Your task to perform on an android device: visit the assistant section in the google photos Image 0: 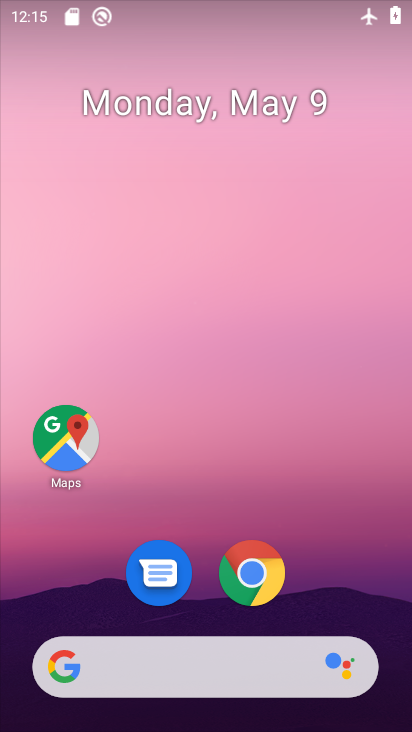
Step 0: drag from (180, 646) to (234, 214)
Your task to perform on an android device: visit the assistant section in the google photos Image 1: 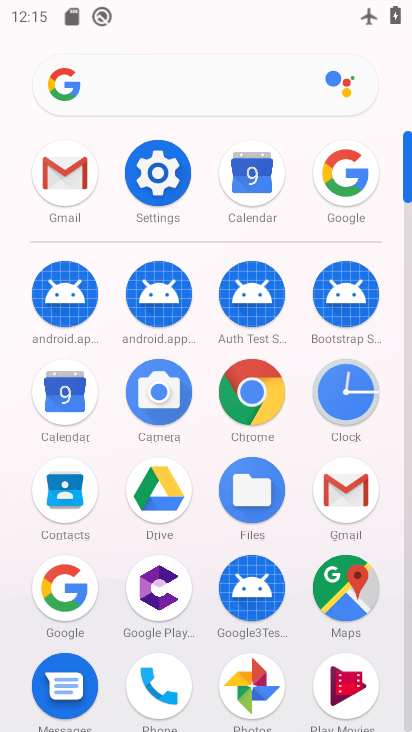
Step 1: click (241, 676)
Your task to perform on an android device: visit the assistant section in the google photos Image 2: 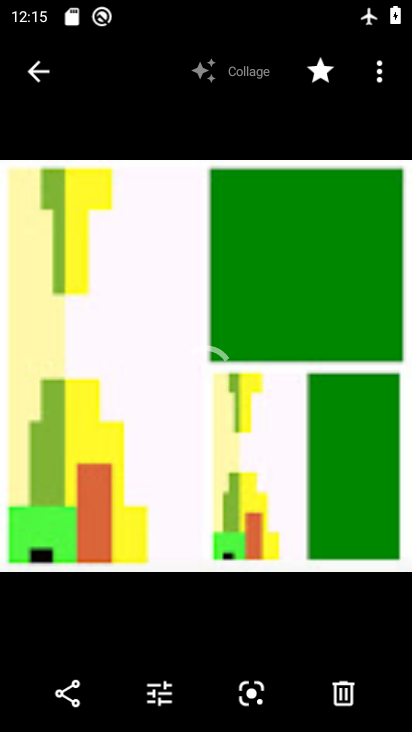
Step 2: click (43, 74)
Your task to perform on an android device: visit the assistant section in the google photos Image 3: 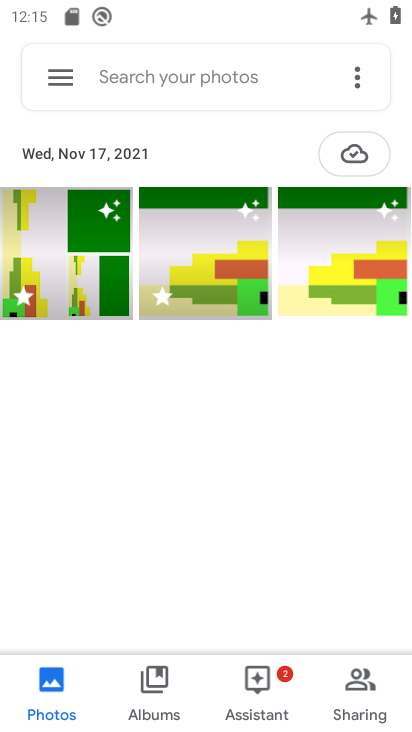
Step 3: click (253, 682)
Your task to perform on an android device: visit the assistant section in the google photos Image 4: 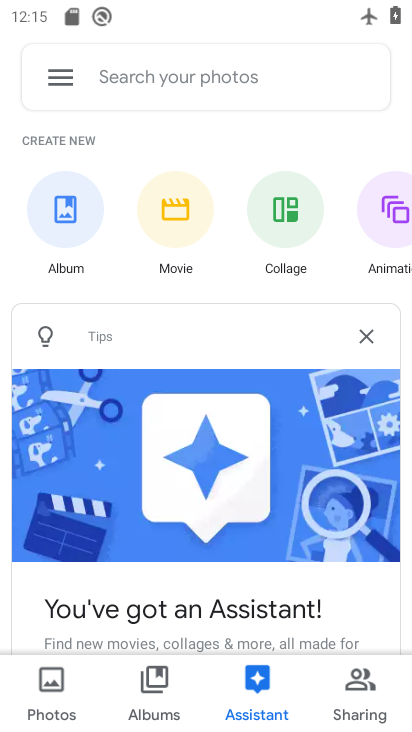
Step 4: task complete